Your task to perform on an android device: turn off notifications in google photos Image 0: 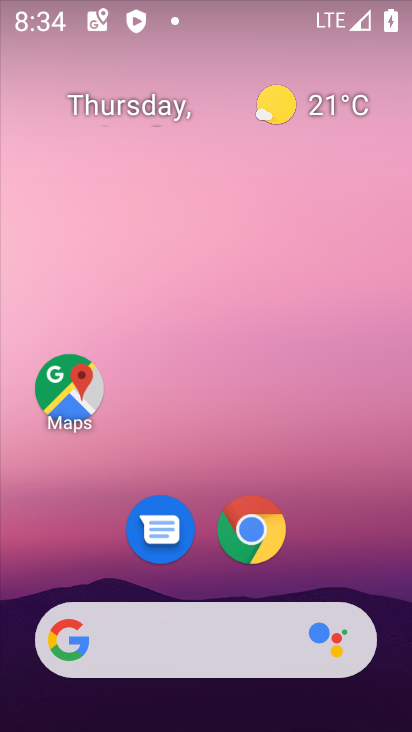
Step 0: click (401, 240)
Your task to perform on an android device: turn off notifications in google photos Image 1: 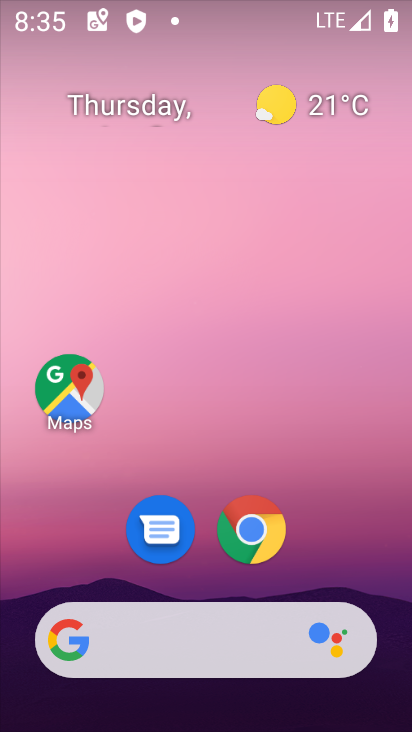
Step 1: drag from (264, 693) to (215, 23)
Your task to perform on an android device: turn off notifications in google photos Image 2: 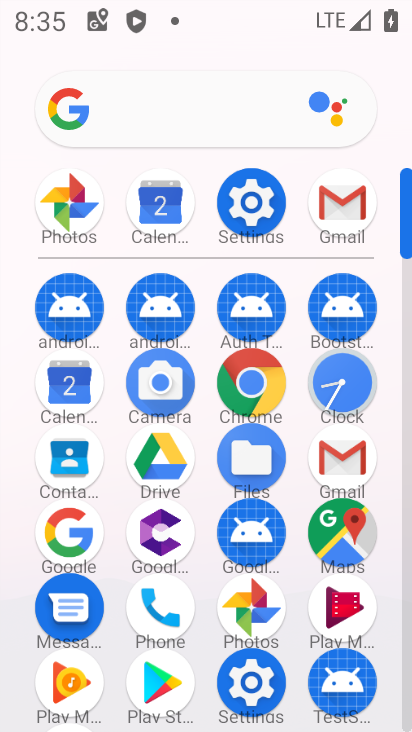
Step 2: click (69, 204)
Your task to perform on an android device: turn off notifications in google photos Image 3: 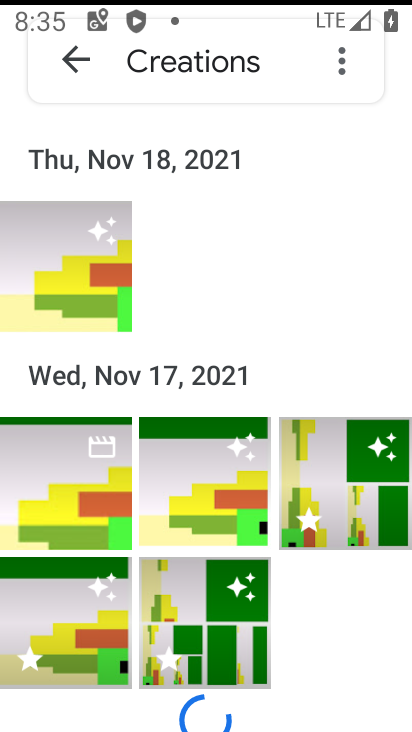
Step 3: press home button
Your task to perform on an android device: turn off notifications in google photos Image 4: 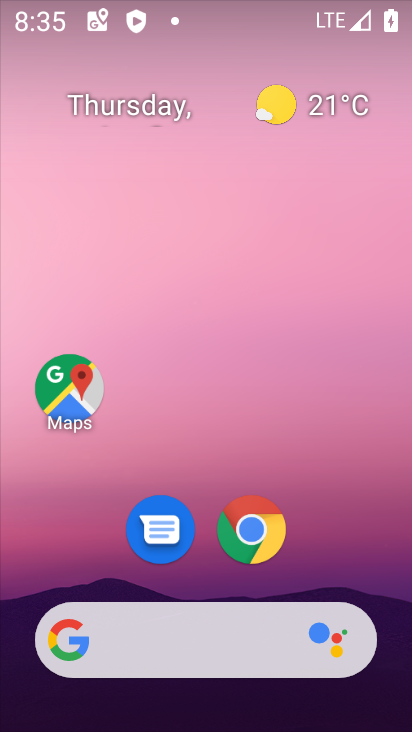
Step 4: drag from (257, 686) to (216, 125)
Your task to perform on an android device: turn off notifications in google photos Image 5: 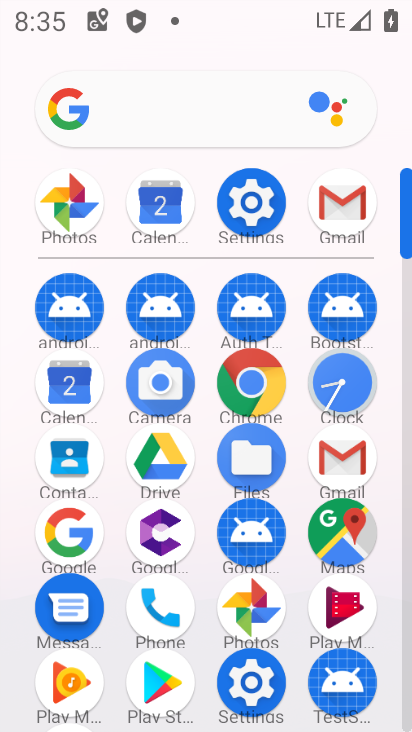
Step 5: click (270, 617)
Your task to perform on an android device: turn off notifications in google photos Image 6: 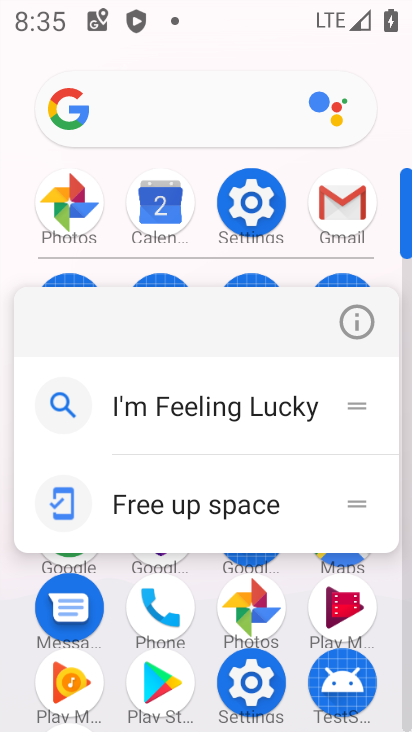
Step 6: click (365, 318)
Your task to perform on an android device: turn off notifications in google photos Image 7: 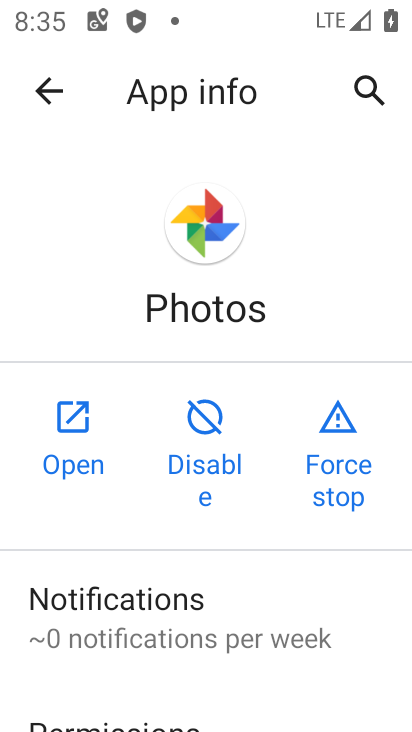
Step 7: click (212, 631)
Your task to perform on an android device: turn off notifications in google photos Image 8: 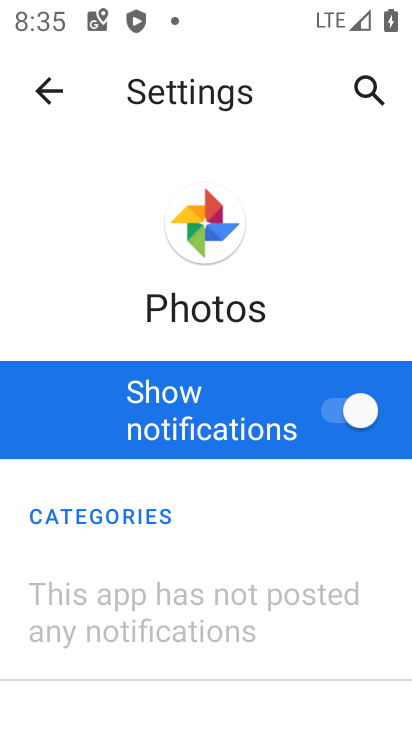
Step 8: click (343, 410)
Your task to perform on an android device: turn off notifications in google photos Image 9: 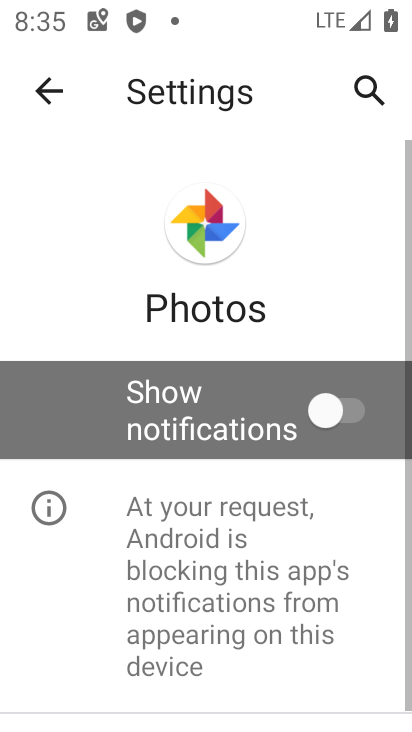
Step 9: task complete